Your task to perform on an android device: turn on data saver in the chrome app Image 0: 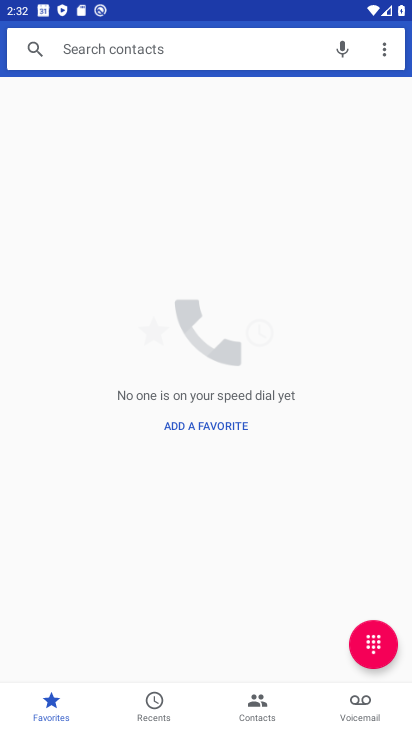
Step 0: press home button
Your task to perform on an android device: turn on data saver in the chrome app Image 1: 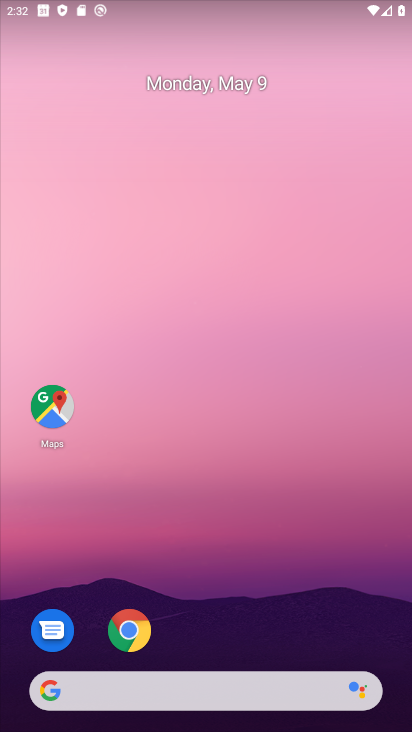
Step 1: drag from (229, 620) to (166, 131)
Your task to perform on an android device: turn on data saver in the chrome app Image 2: 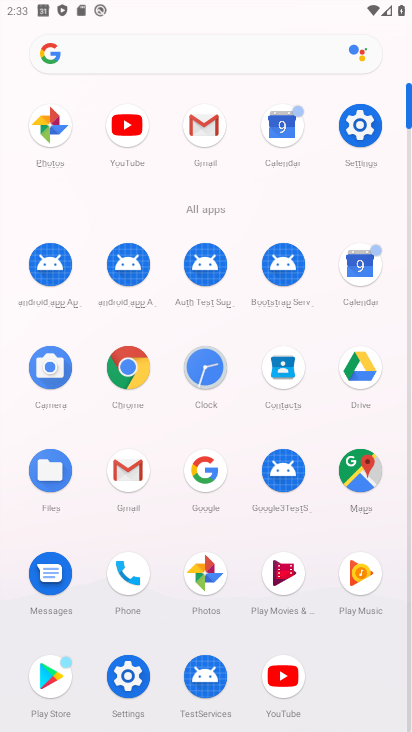
Step 2: click (138, 372)
Your task to perform on an android device: turn on data saver in the chrome app Image 3: 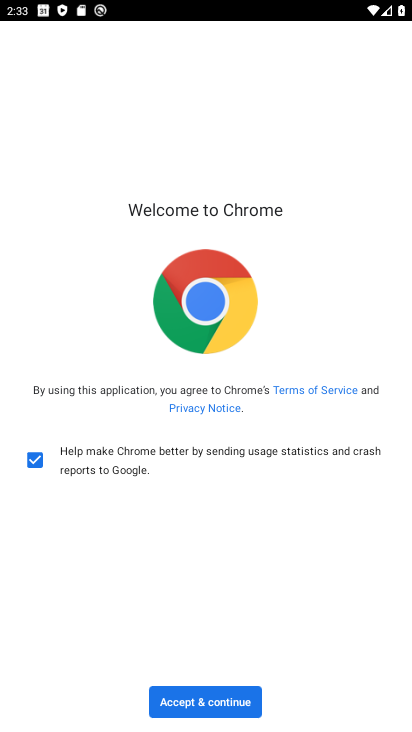
Step 3: click (186, 699)
Your task to perform on an android device: turn on data saver in the chrome app Image 4: 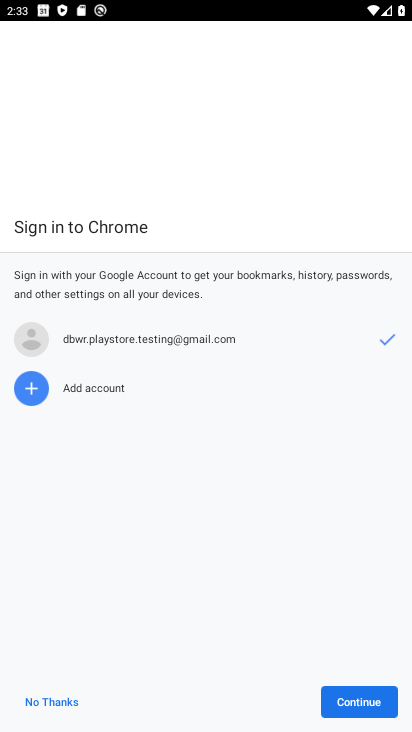
Step 4: click (352, 706)
Your task to perform on an android device: turn on data saver in the chrome app Image 5: 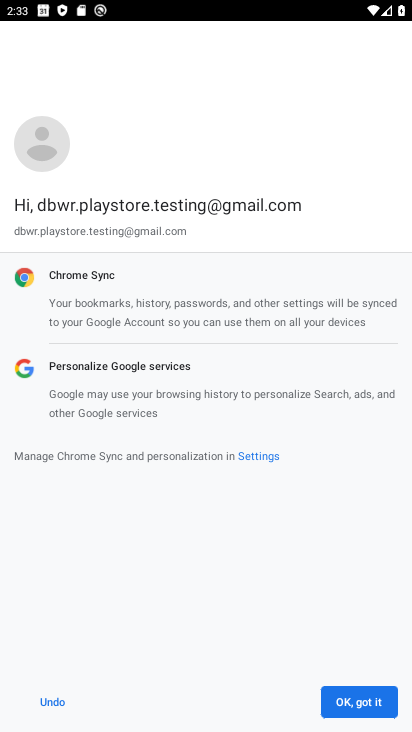
Step 5: click (352, 706)
Your task to perform on an android device: turn on data saver in the chrome app Image 6: 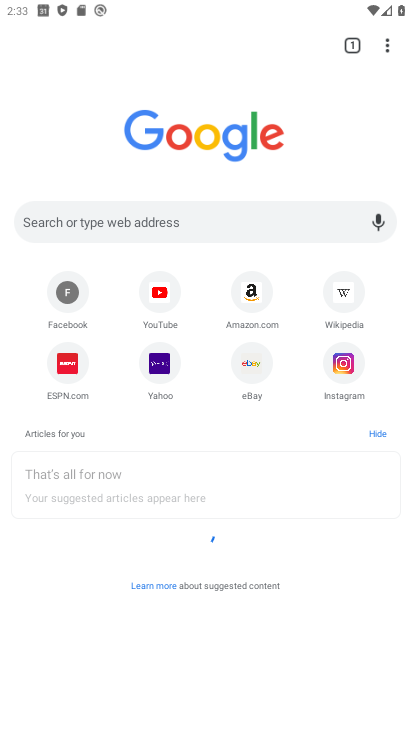
Step 6: drag from (388, 61) to (231, 377)
Your task to perform on an android device: turn on data saver in the chrome app Image 7: 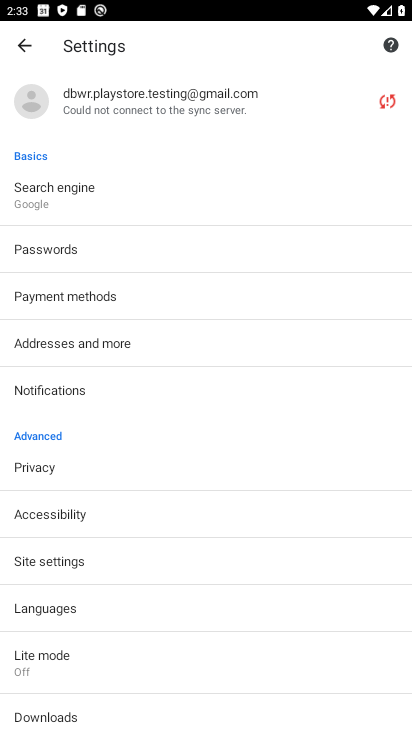
Step 7: click (220, 654)
Your task to perform on an android device: turn on data saver in the chrome app Image 8: 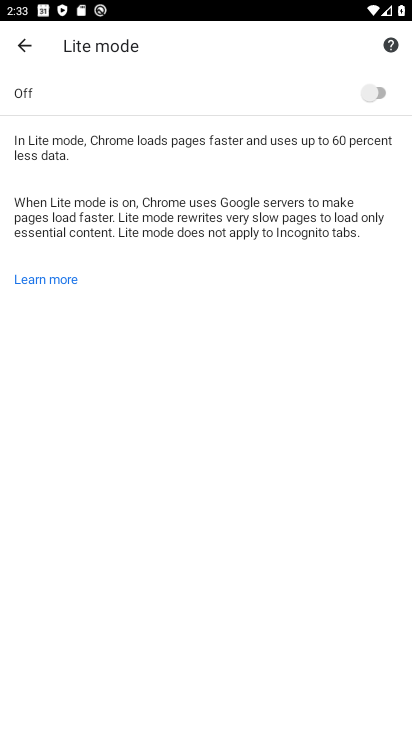
Step 8: click (384, 82)
Your task to perform on an android device: turn on data saver in the chrome app Image 9: 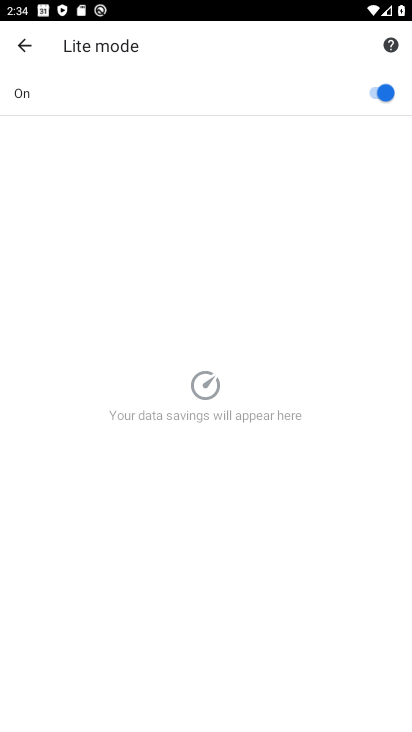
Step 9: task complete